Your task to perform on an android device: check battery use Image 0: 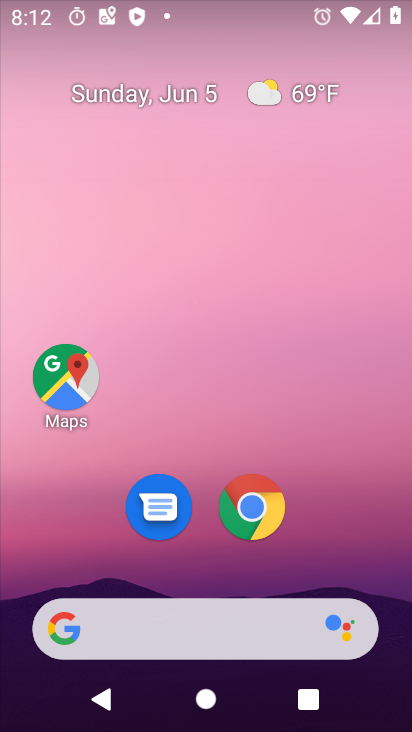
Step 0: drag from (356, 549) to (196, 9)
Your task to perform on an android device: check battery use Image 1: 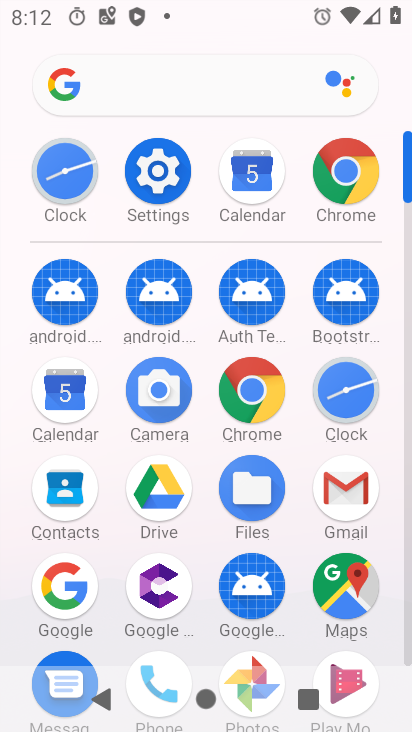
Step 1: drag from (14, 551) to (18, 247)
Your task to perform on an android device: check battery use Image 2: 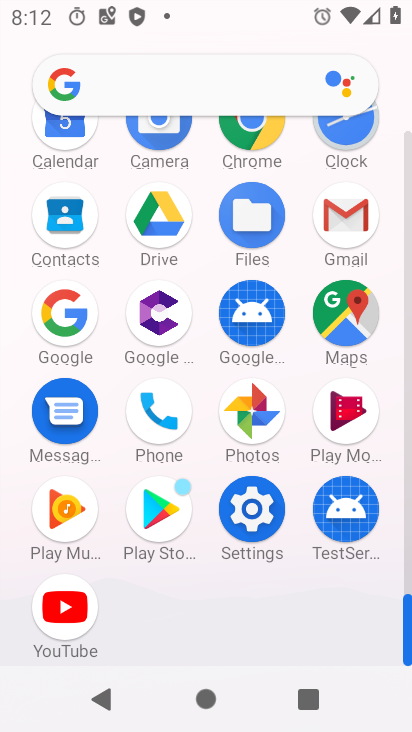
Step 2: click (250, 506)
Your task to perform on an android device: check battery use Image 3: 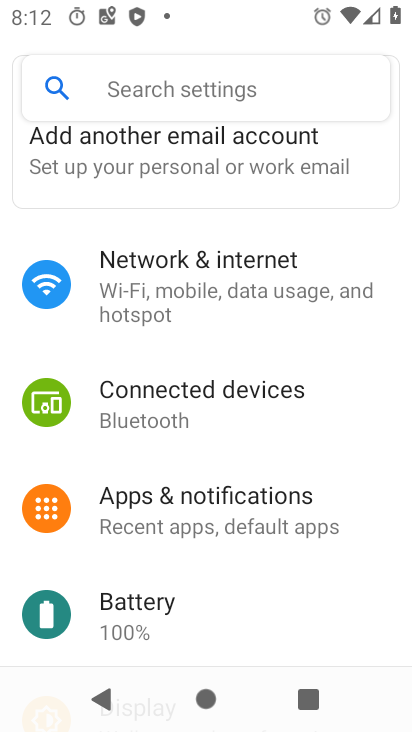
Step 3: click (174, 633)
Your task to perform on an android device: check battery use Image 4: 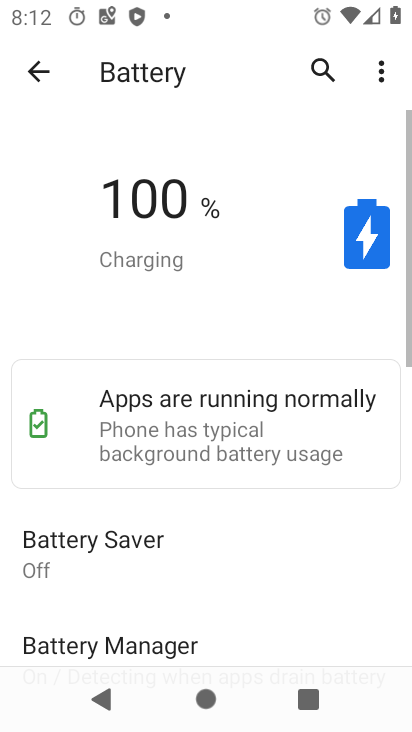
Step 4: task complete